Your task to perform on an android device: turn on wifi Image 0: 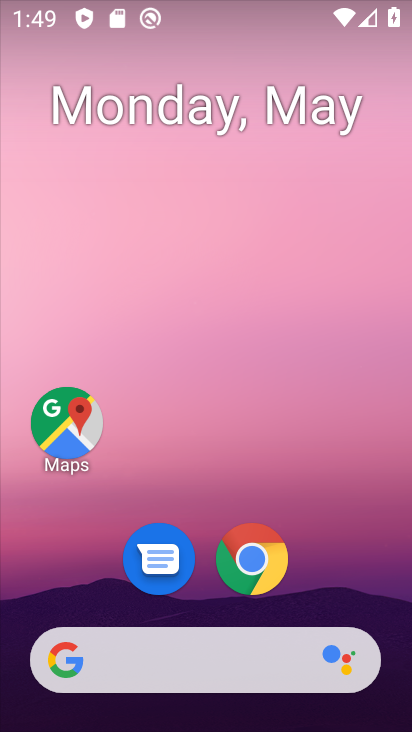
Step 0: drag from (345, 615) to (377, 2)
Your task to perform on an android device: turn on wifi Image 1: 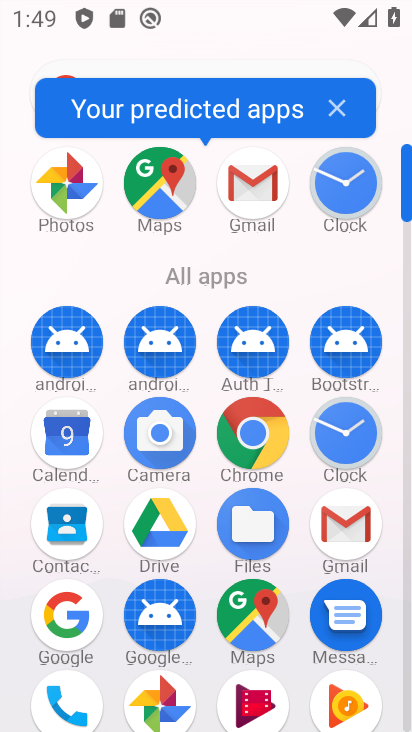
Step 1: click (408, 520)
Your task to perform on an android device: turn on wifi Image 2: 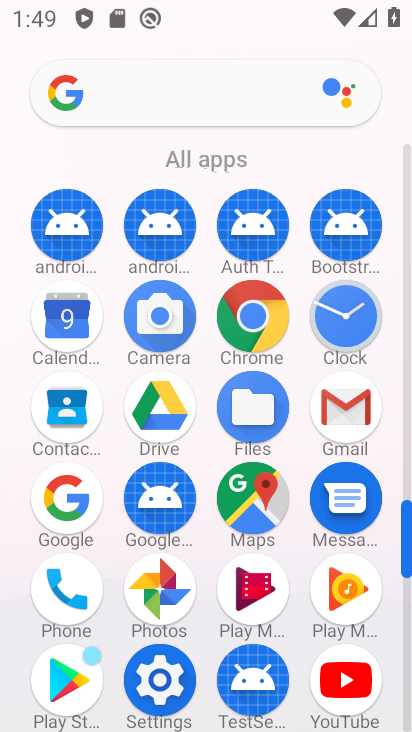
Step 2: click (162, 693)
Your task to perform on an android device: turn on wifi Image 3: 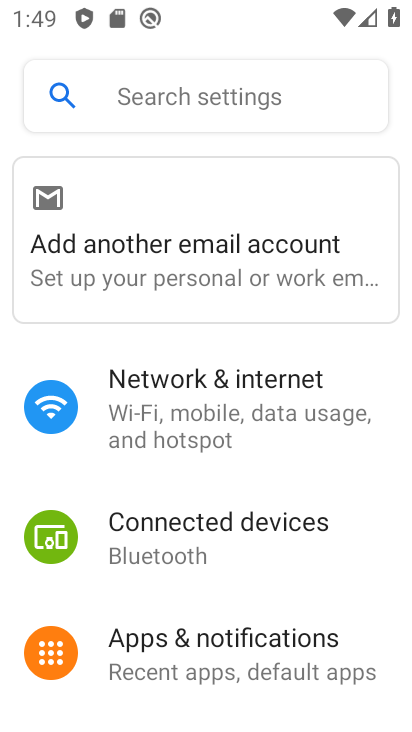
Step 3: click (190, 422)
Your task to perform on an android device: turn on wifi Image 4: 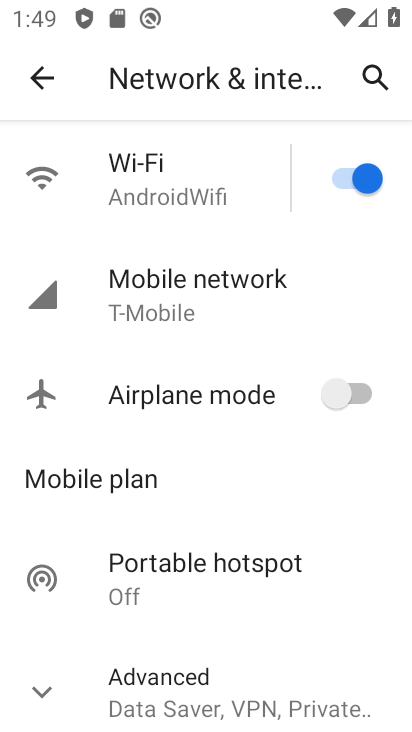
Step 4: task complete